Your task to perform on an android device: Open Google Maps Image 0: 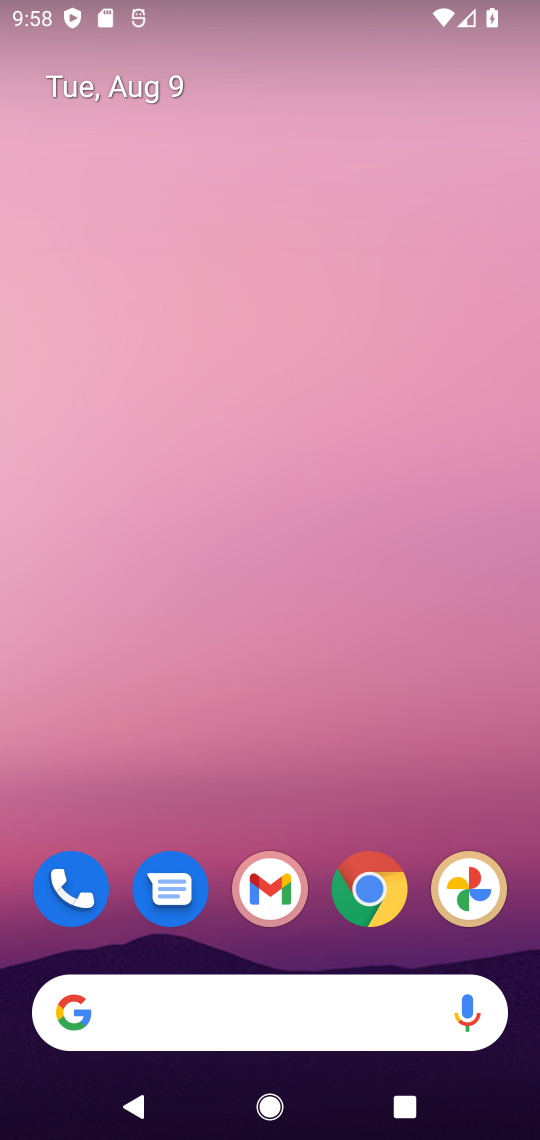
Step 0: drag from (310, 966) to (418, 54)
Your task to perform on an android device: Open Google Maps Image 1: 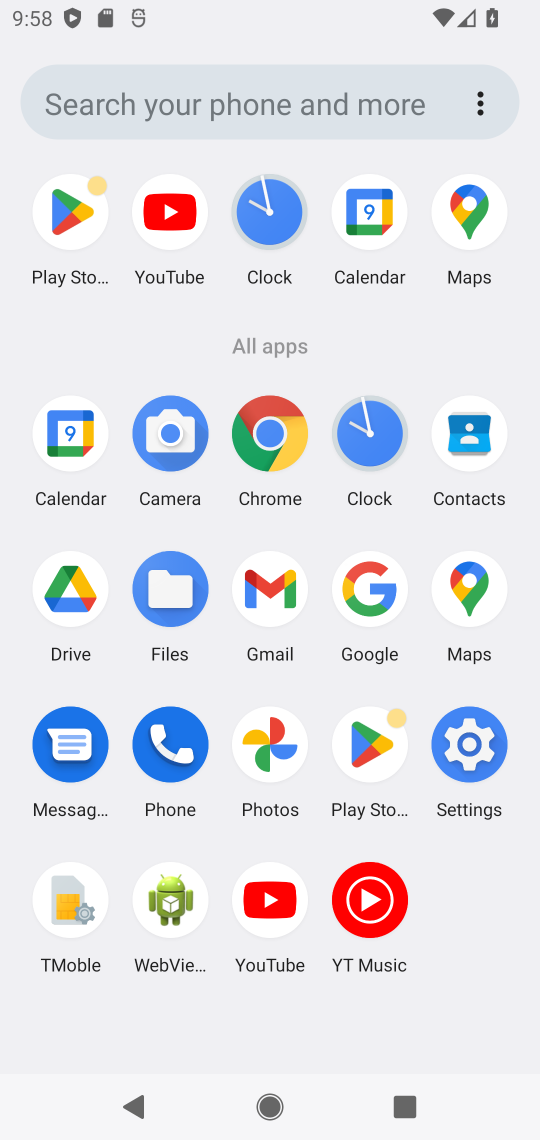
Step 1: click (474, 592)
Your task to perform on an android device: Open Google Maps Image 2: 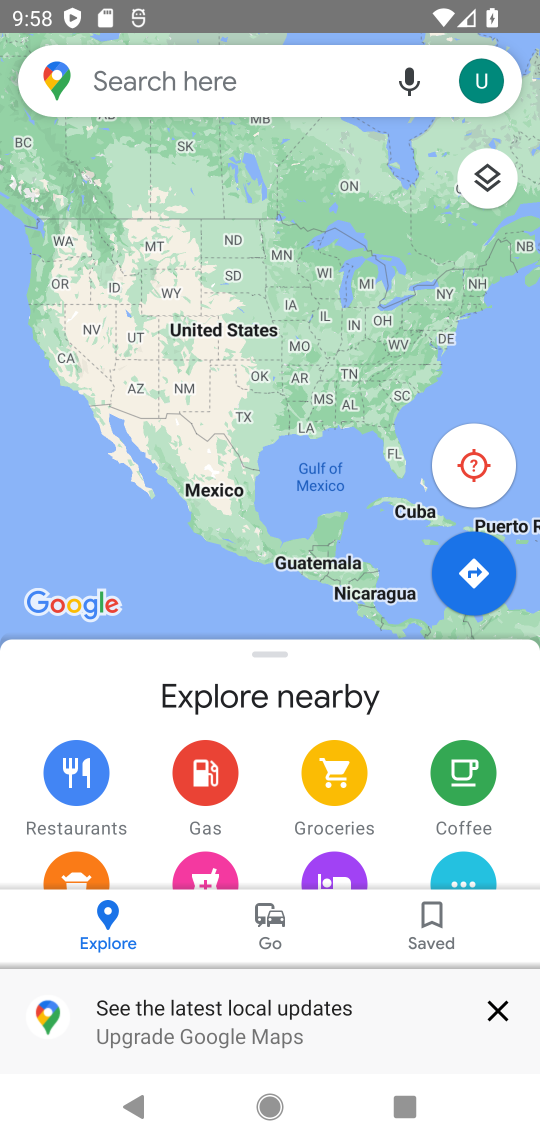
Step 2: task complete